Your task to perform on an android device: Show me some nice wallpapers for my phone Image 0: 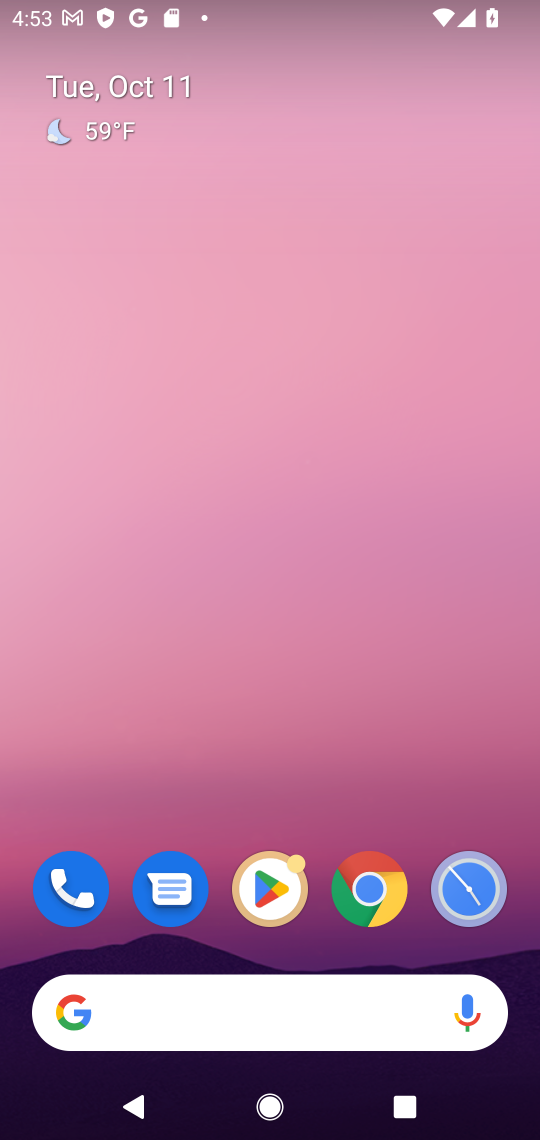
Step 0: drag from (257, 1022) to (262, 258)
Your task to perform on an android device: Show me some nice wallpapers for my phone Image 1: 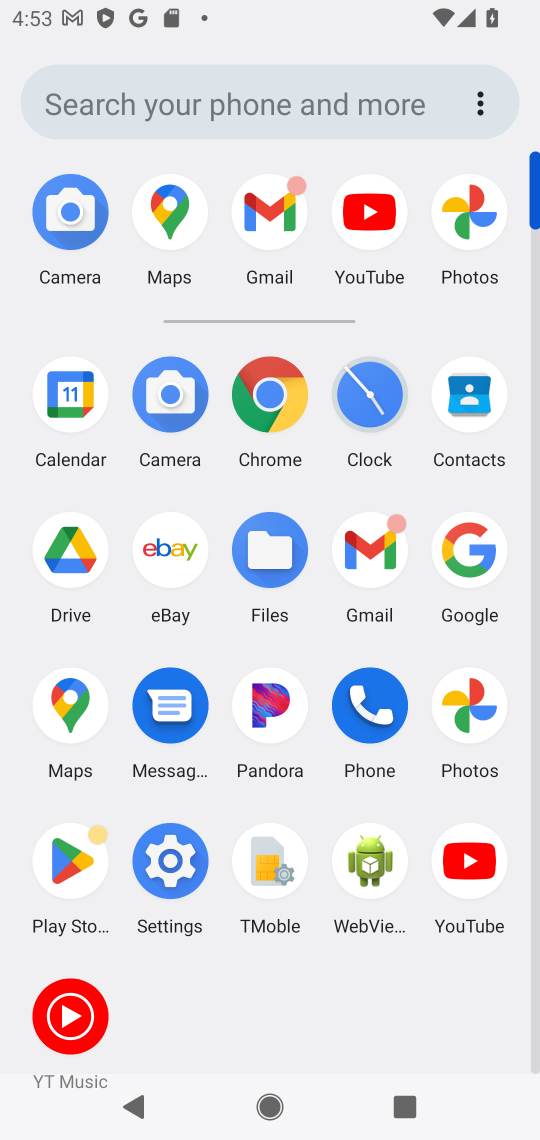
Step 1: click (454, 535)
Your task to perform on an android device: Show me some nice wallpapers for my phone Image 2: 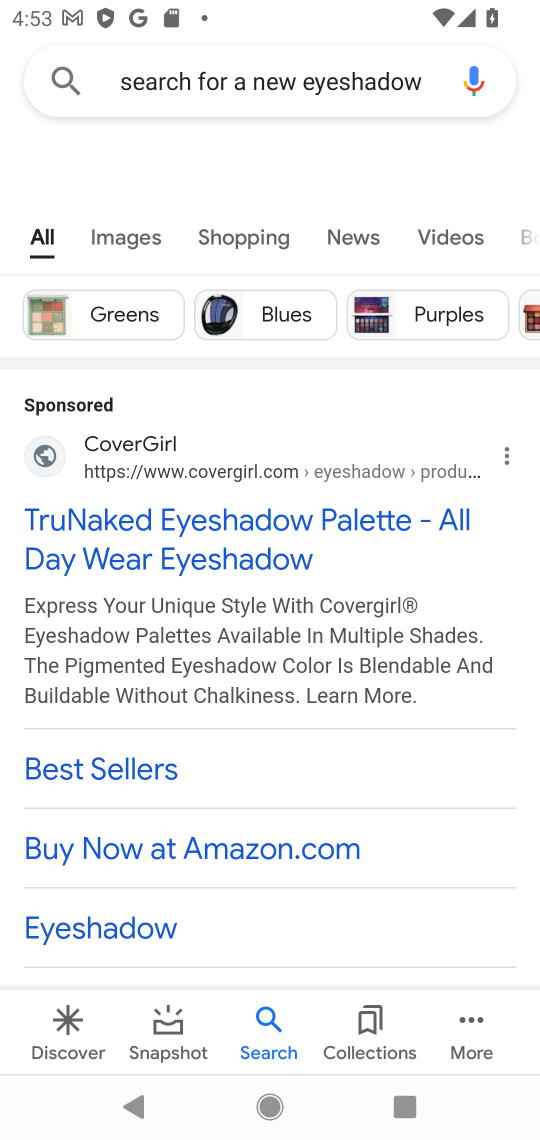
Step 2: click (260, 79)
Your task to perform on an android device: Show me some nice wallpapers for my phone Image 3: 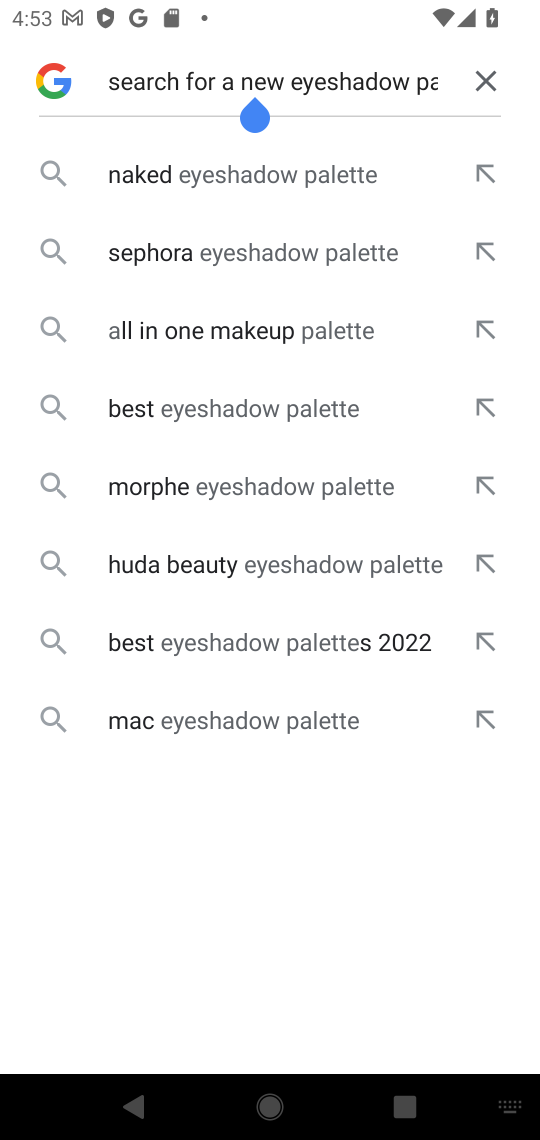
Step 3: click (488, 76)
Your task to perform on an android device: Show me some nice wallpapers for my phone Image 4: 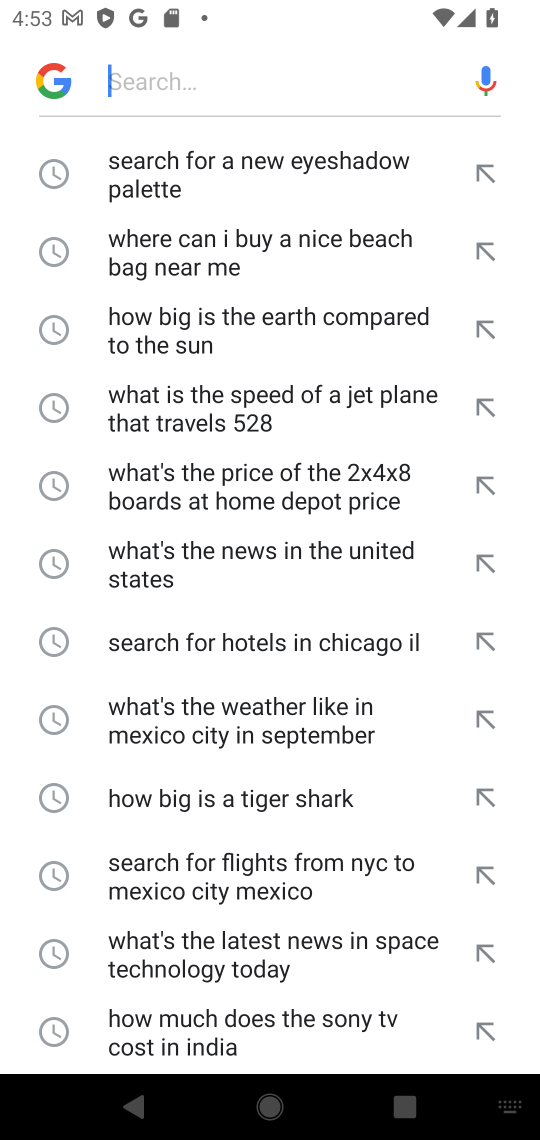
Step 4: click (192, 78)
Your task to perform on an android device: Show me some nice wallpapers for my phone Image 5: 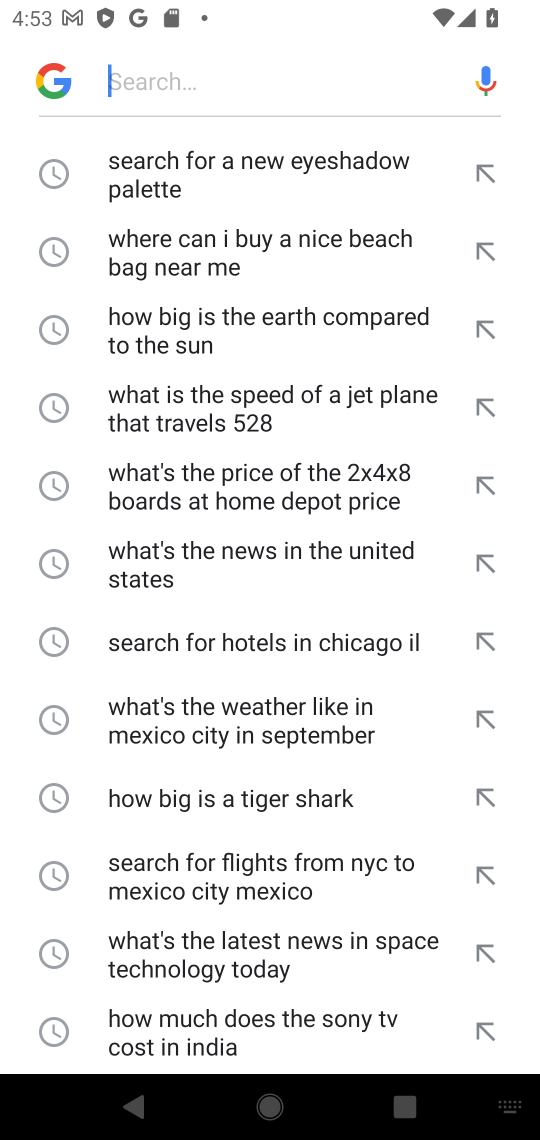
Step 5: type "Show me some nice wallpapers for my phone "
Your task to perform on an android device: Show me some nice wallpapers for my phone Image 6: 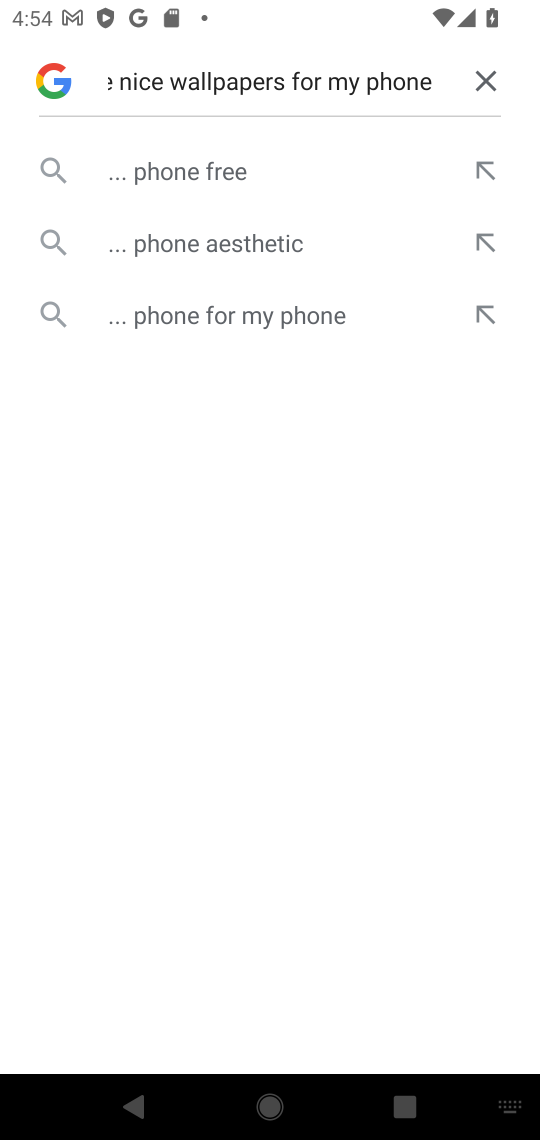
Step 6: click (215, 181)
Your task to perform on an android device: Show me some nice wallpapers for my phone Image 7: 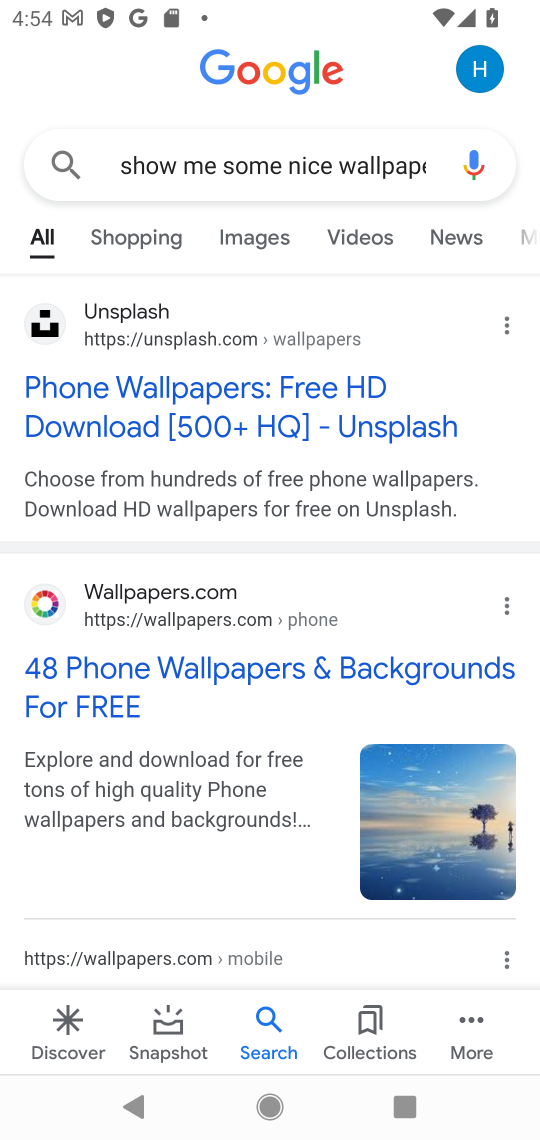
Step 7: click (259, 382)
Your task to perform on an android device: Show me some nice wallpapers for my phone Image 8: 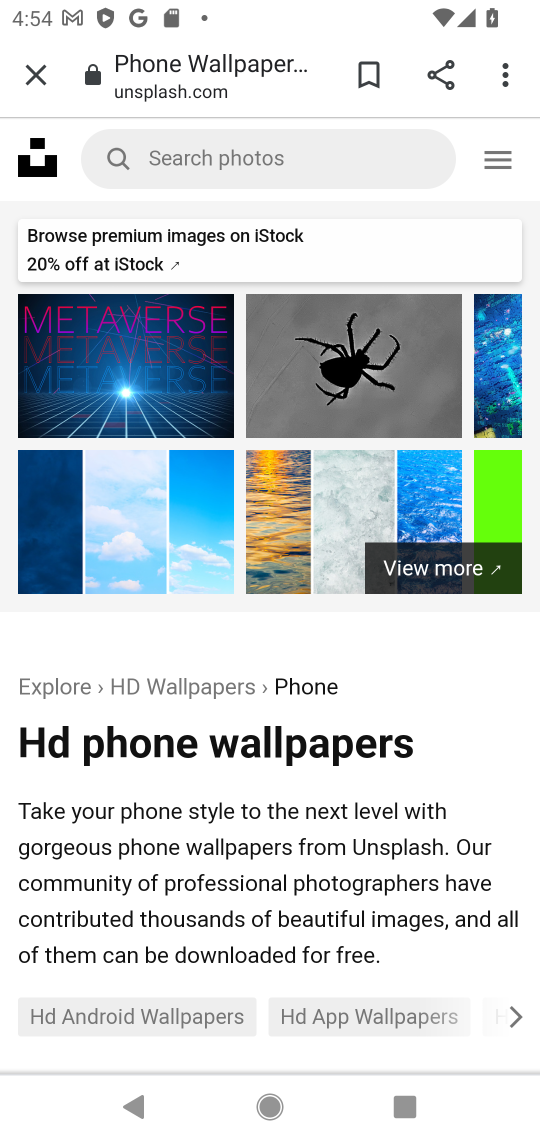
Step 8: task complete